Your task to perform on an android device: turn off location Image 0: 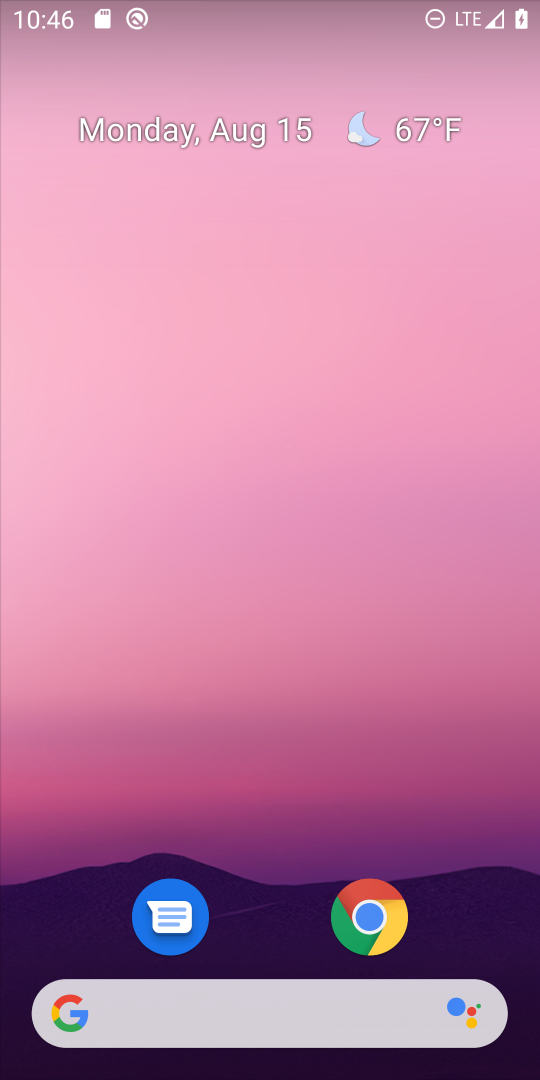
Step 0: drag from (265, 781) to (274, 0)
Your task to perform on an android device: turn off location Image 1: 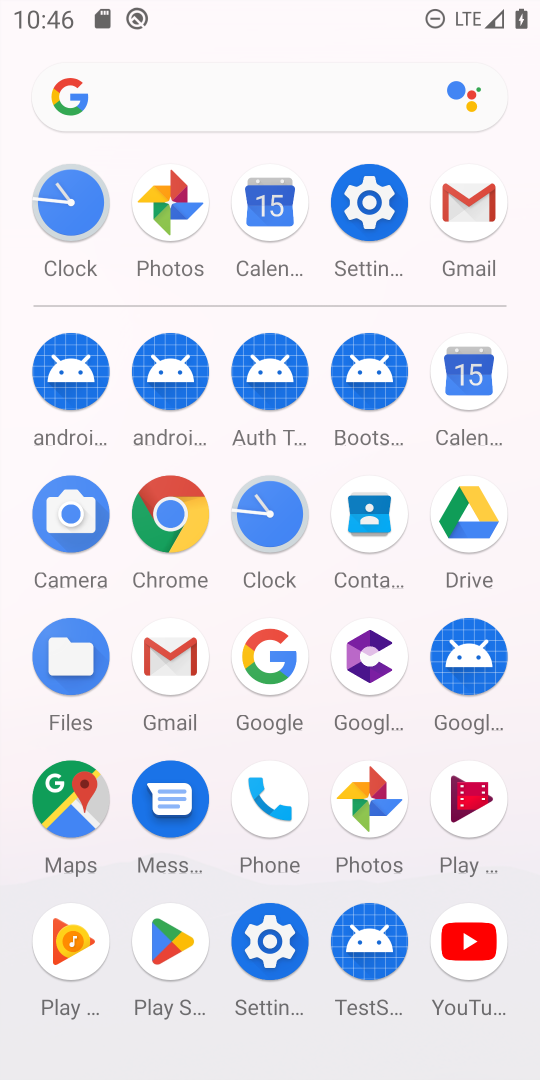
Step 1: click (356, 199)
Your task to perform on an android device: turn off location Image 2: 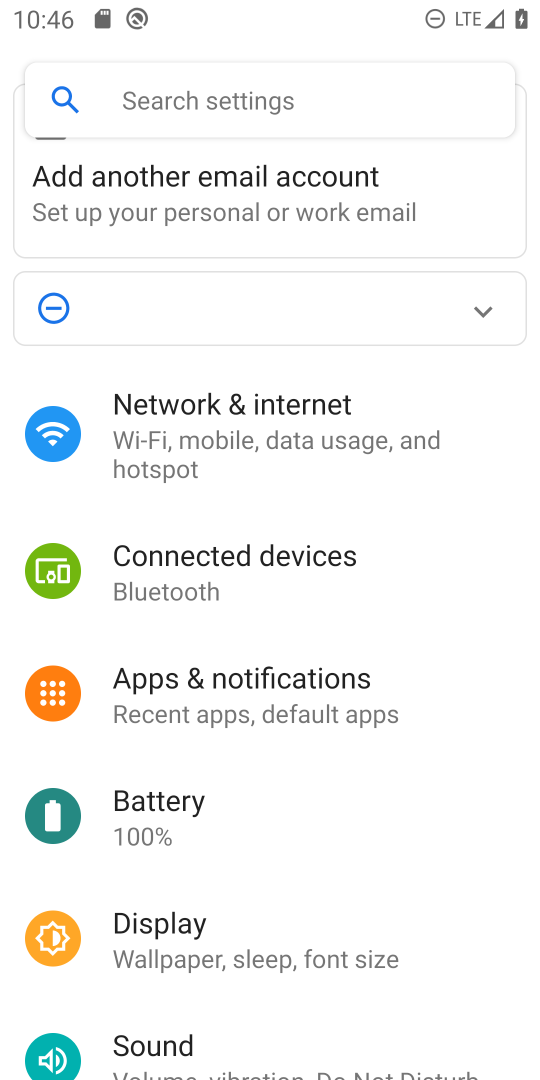
Step 2: drag from (324, 820) to (346, 62)
Your task to perform on an android device: turn off location Image 3: 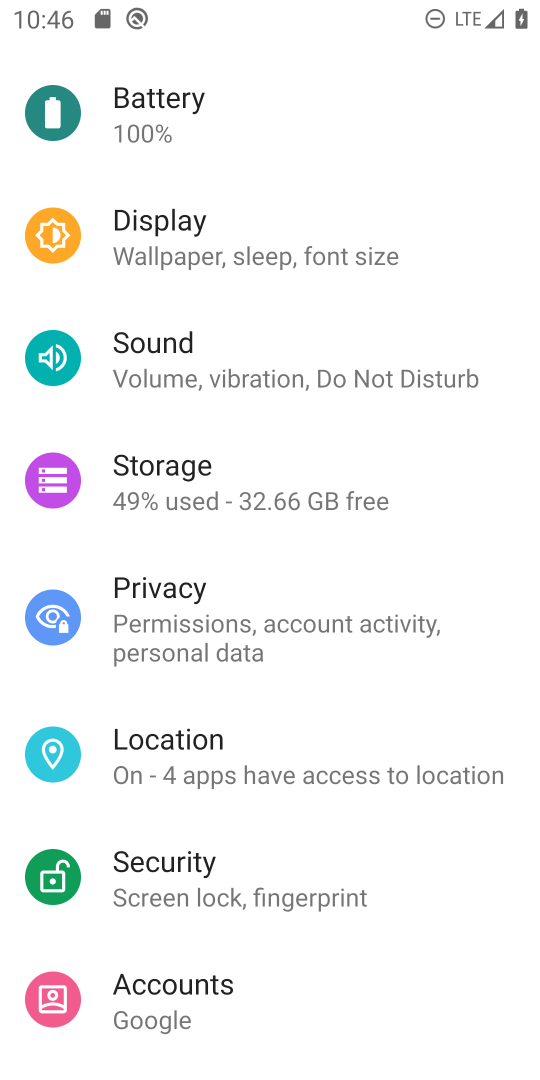
Step 3: click (320, 753)
Your task to perform on an android device: turn off location Image 4: 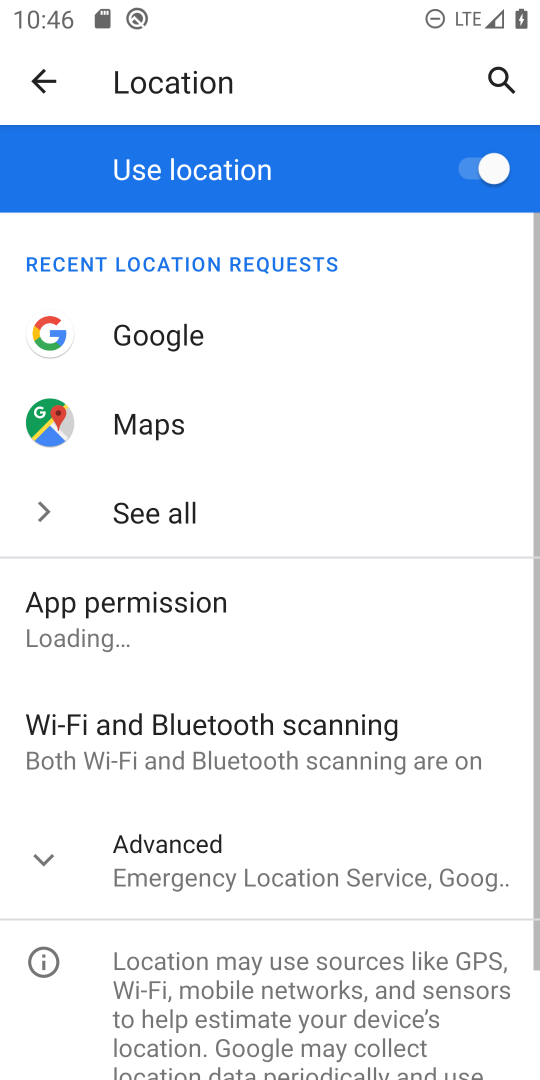
Step 4: click (476, 152)
Your task to perform on an android device: turn off location Image 5: 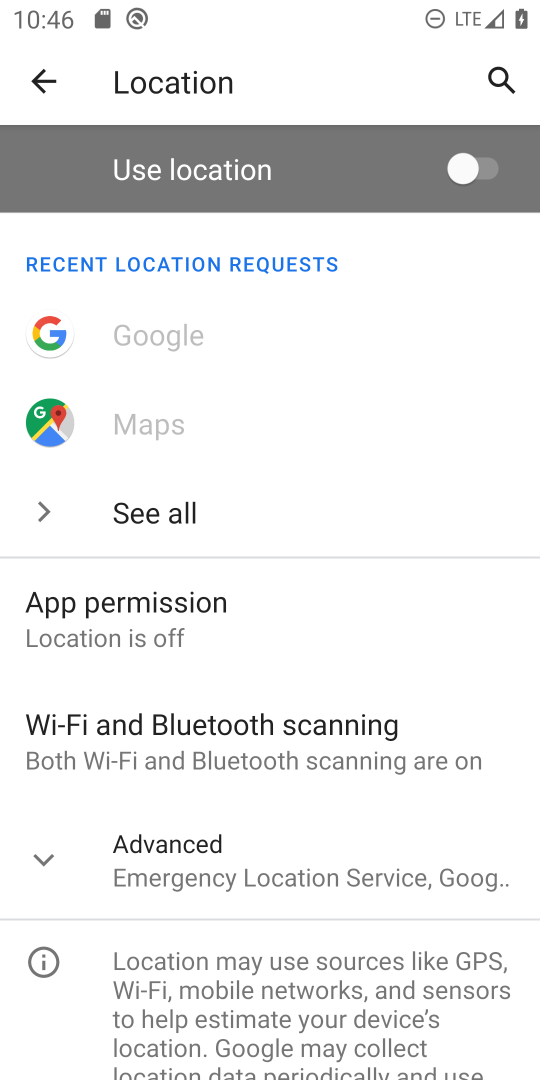
Step 5: task complete